Your task to perform on an android device: Add "sony triple a" to the cart on walmart.com, then select checkout. Image 0: 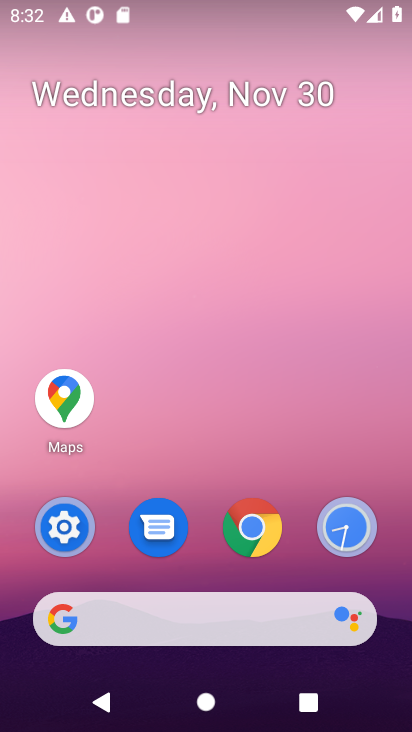
Step 0: click (252, 543)
Your task to perform on an android device: Add "sony triple a" to the cart on walmart.com, then select checkout. Image 1: 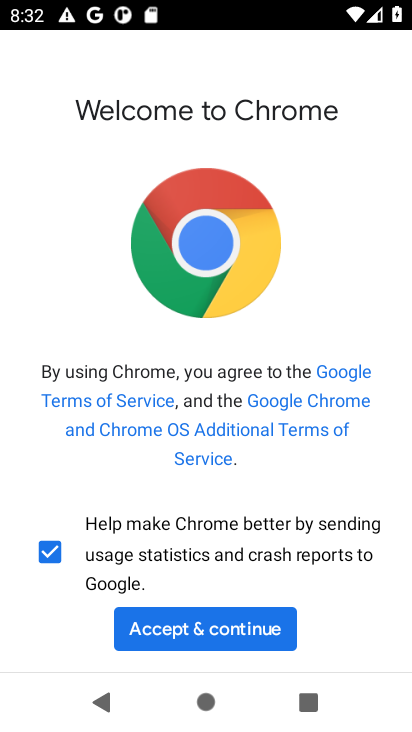
Step 1: click (195, 626)
Your task to perform on an android device: Add "sony triple a" to the cart on walmart.com, then select checkout. Image 2: 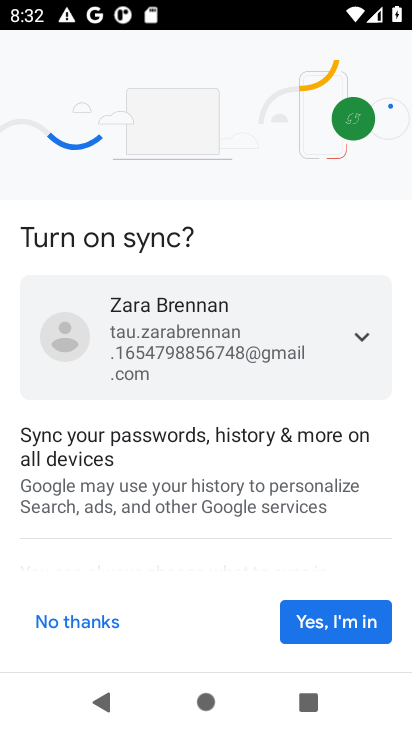
Step 2: click (340, 619)
Your task to perform on an android device: Add "sony triple a" to the cart on walmart.com, then select checkout. Image 3: 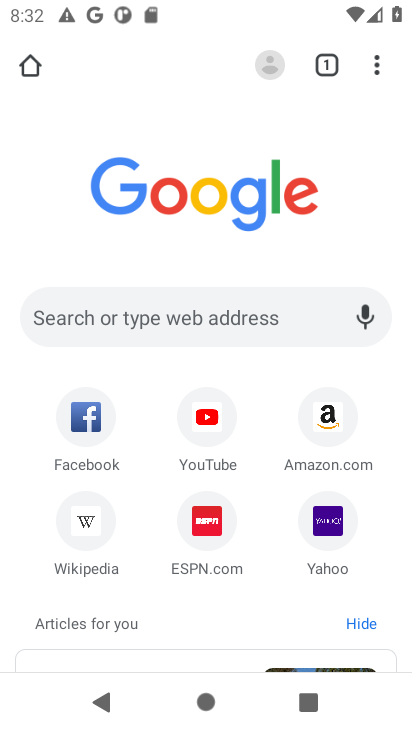
Step 3: click (255, 310)
Your task to perform on an android device: Add "sony triple a" to the cart on walmart.com, then select checkout. Image 4: 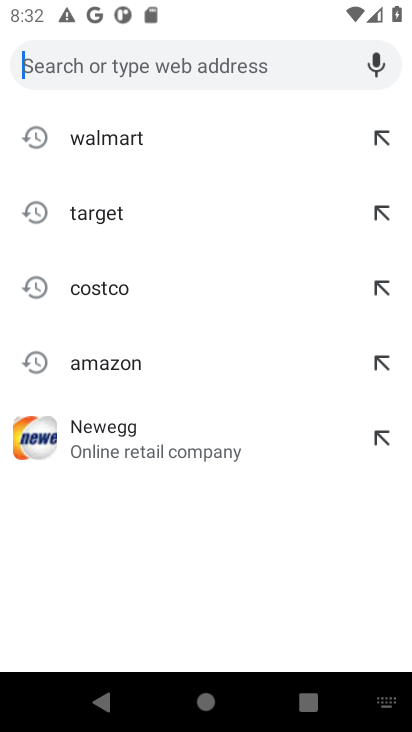
Step 4: click (100, 135)
Your task to perform on an android device: Add "sony triple a" to the cart on walmart.com, then select checkout. Image 5: 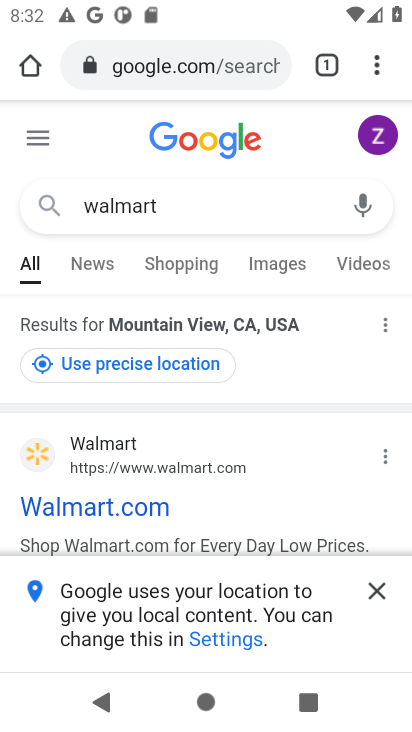
Step 5: click (378, 586)
Your task to perform on an android device: Add "sony triple a" to the cart on walmart.com, then select checkout. Image 6: 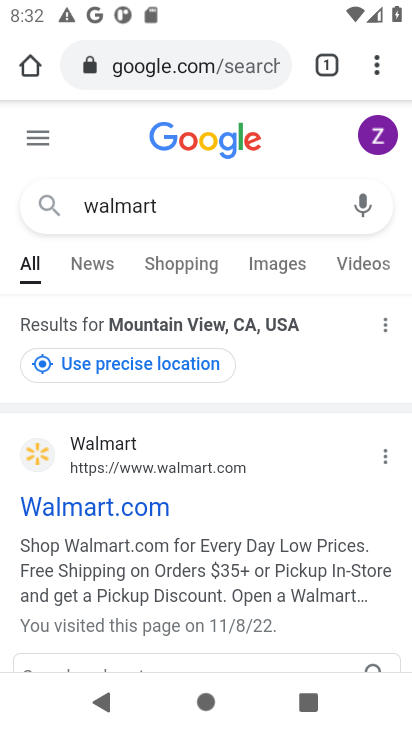
Step 6: click (159, 466)
Your task to perform on an android device: Add "sony triple a" to the cart on walmart.com, then select checkout. Image 7: 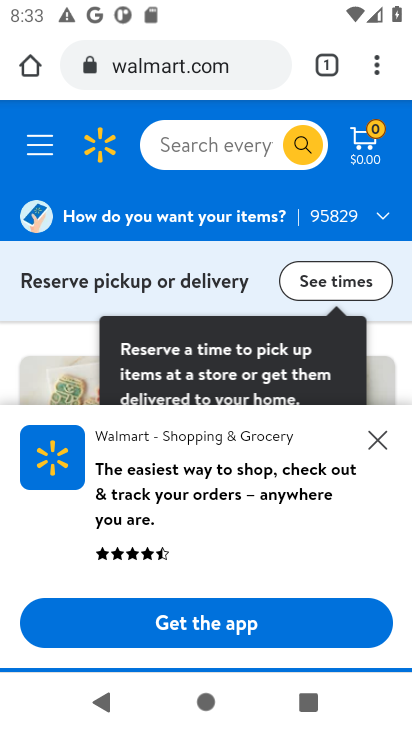
Step 7: click (222, 142)
Your task to perform on an android device: Add "sony triple a" to the cart on walmart.com, then select checkout. Image 8: 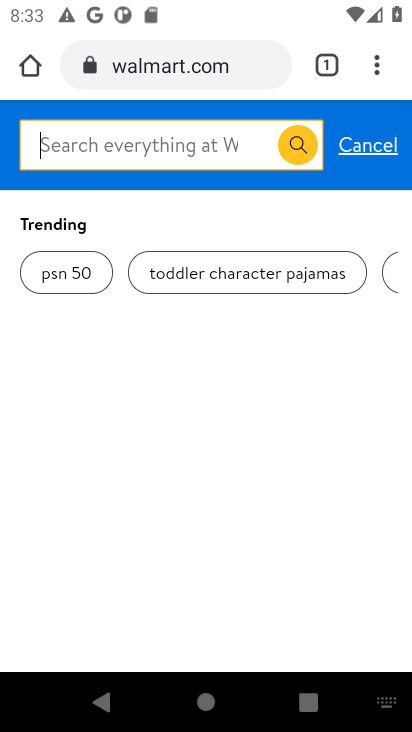
Step 8: type "sony triple a"
Your task to perform on an android device: Add "sony triple a" to the cart on walmart.com, then select checkout. Image 9: 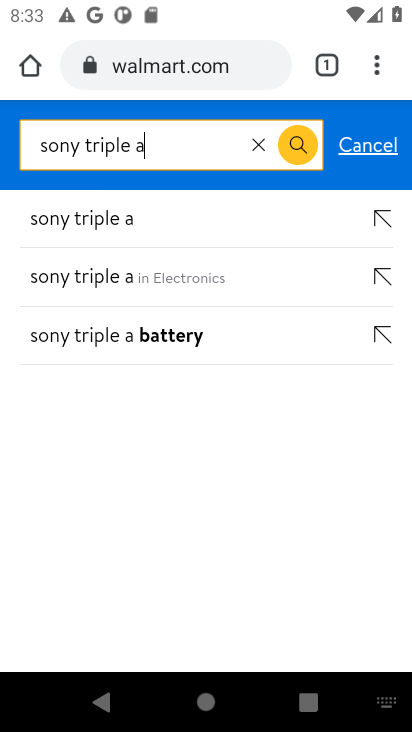
Step 9: press enter
Your task to perform on an android device: Add "sony triple a" to the cart on walmart.com, then select checkout. Image 10: 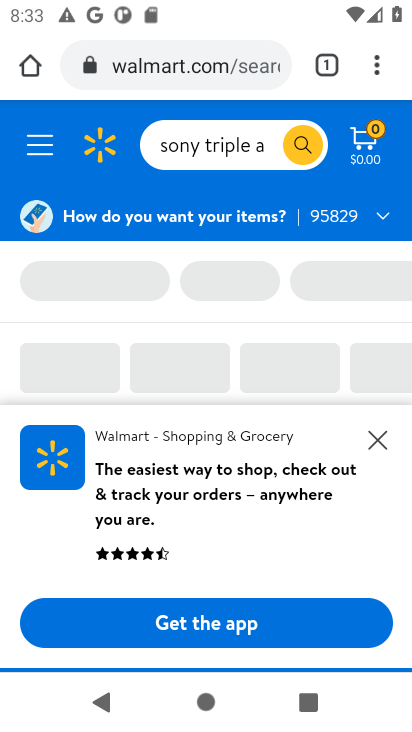
Step 10: click (372, 437)
Your task to perform on an android device: Add "sony triple a" to the cart on walmart.com, then select checkout. Image 11: 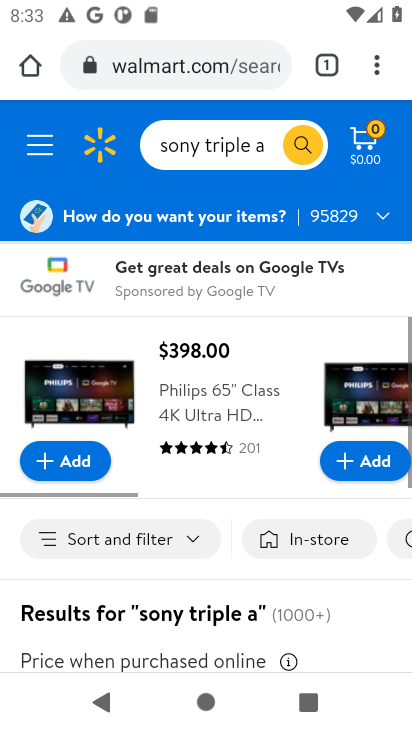
Step 11: task complete